Your task to perform on an android device: turn pop-ups on in chrome Image 0: 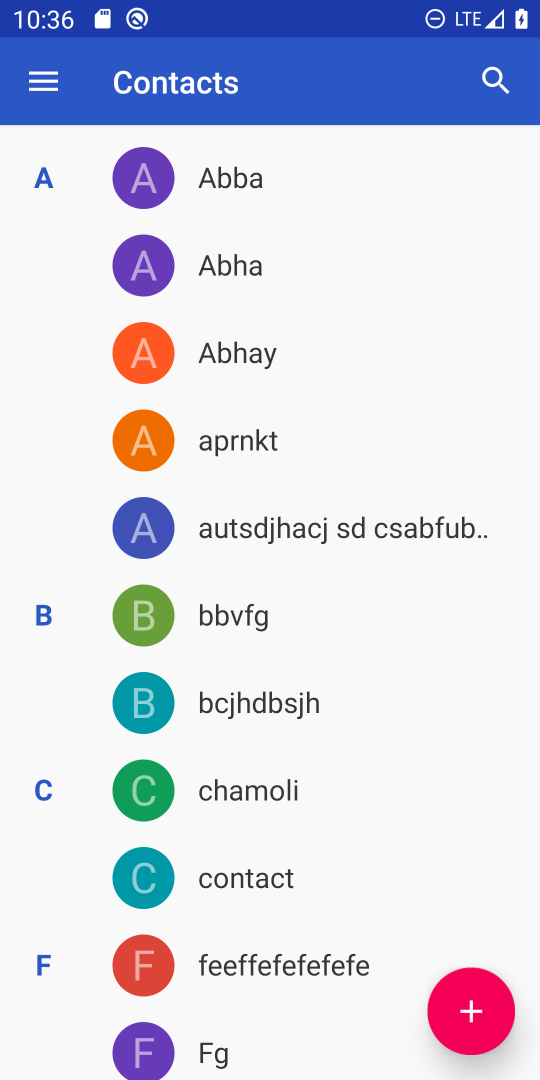
Step 0: press home button
Your task to perform on an android device: turn pop-ups on in chrome Image 1: 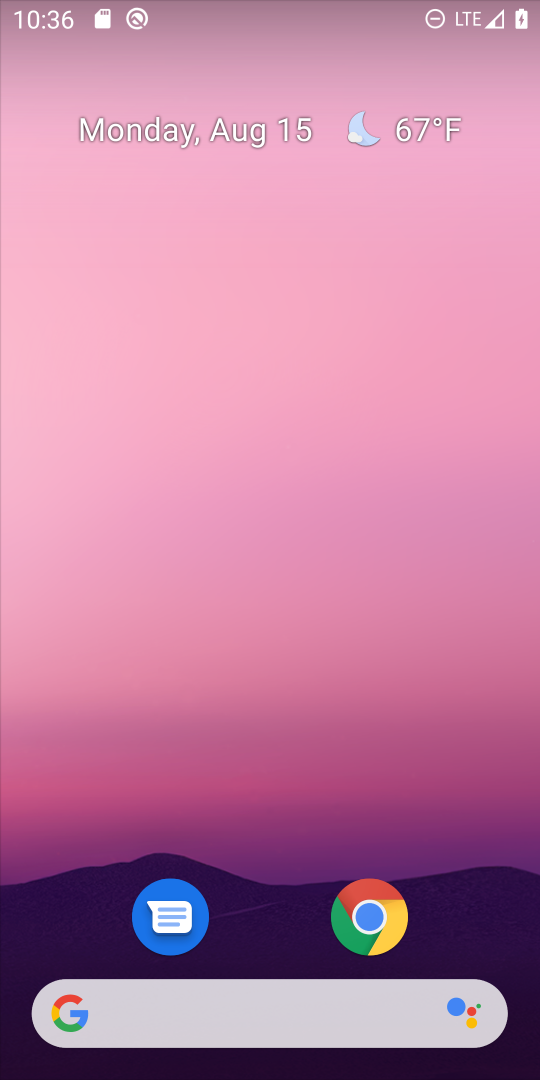
Step 1: click (375, 907)
Your task to perform on an android device: turn pop-ups on in chrome Image 2: 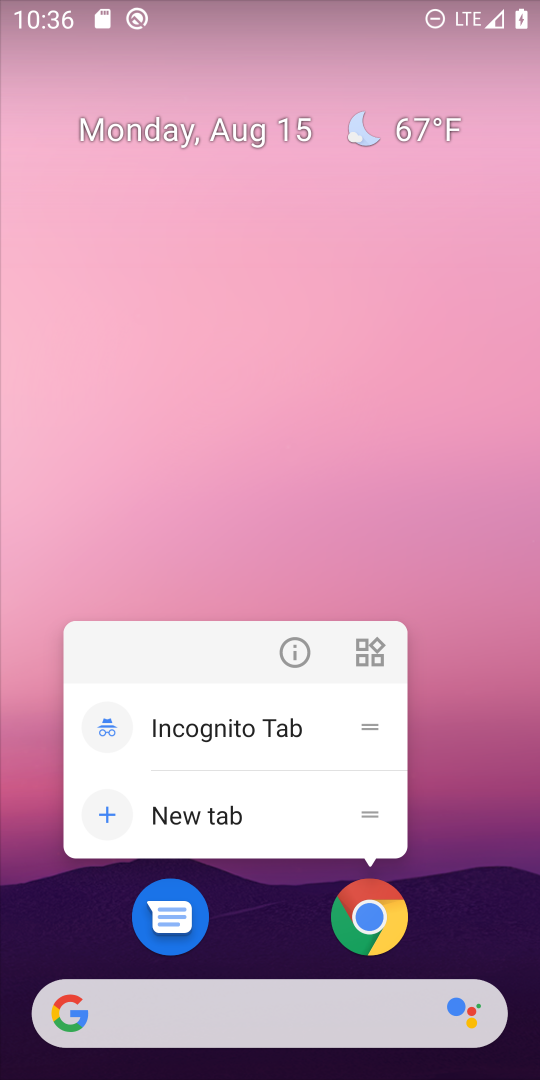
Step 2: click (374, 907)
Your task to perform on an android device: turn pop-ups on in chrome Image 3: 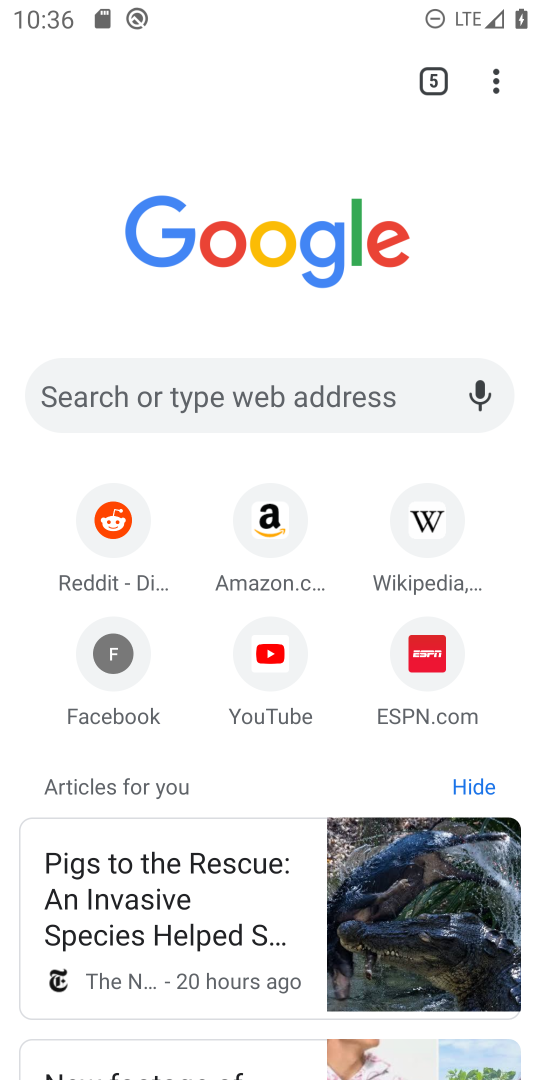
Step 3: click (500, 85)
Your task to perform on an android device: turn pop-ups on in chrome Image 4: 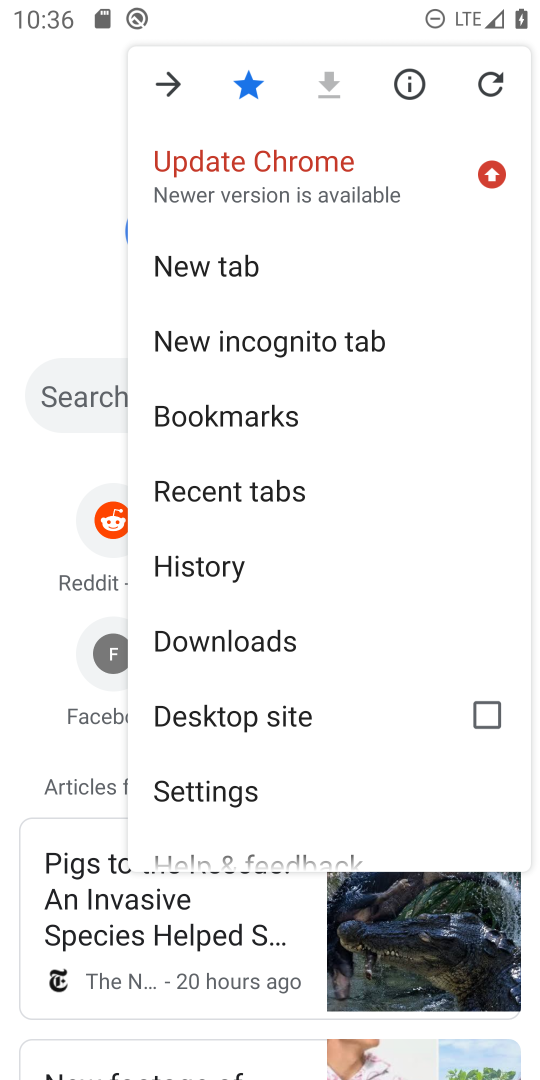
Step 4: click (240, 776)
Your task to perform on an android device: turn pop-ups on in chrome Image 5: 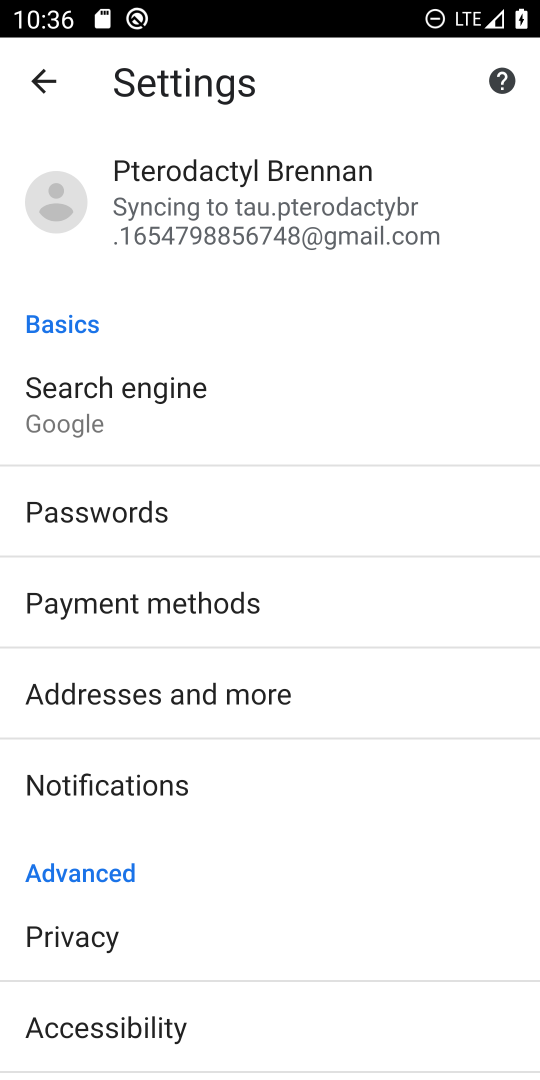
Step 5: click (282, 834)
Your task to perform on an android device: turn pop-ups on in chrome Image 6: 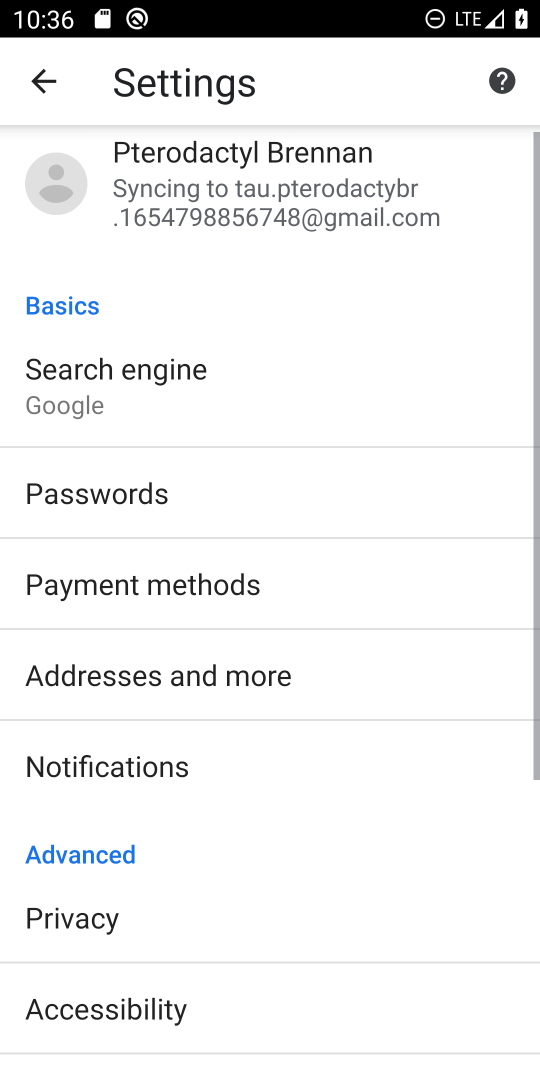
Step 6: drag from (374, 489) to (374, 197)
Your task to perform on an android device: turn pop-ups on in chrome Image 7: 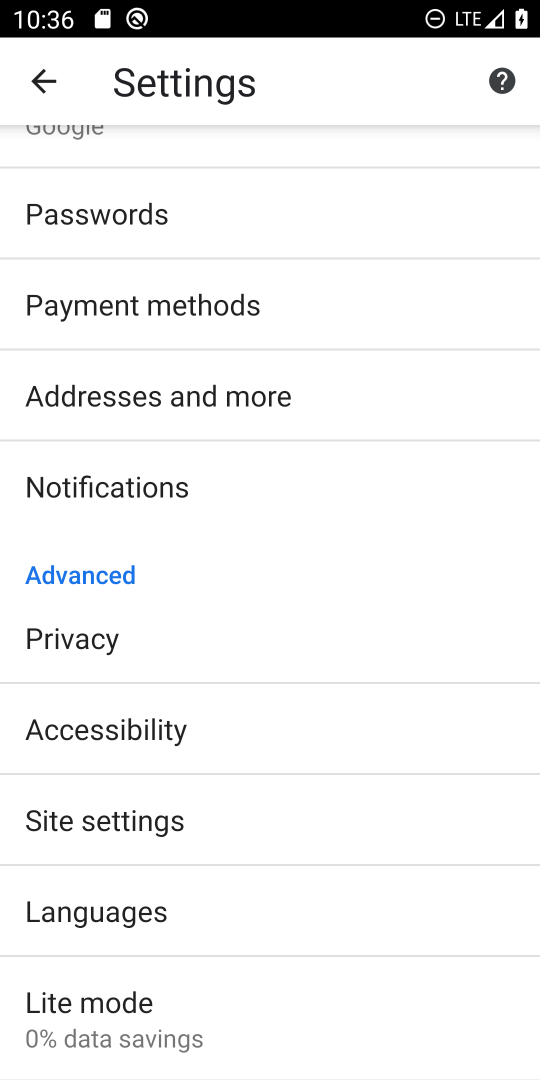
Step 7: click (138, 820)
Your task to perform on an android device: turn pop-ups on in chrome Image 8: 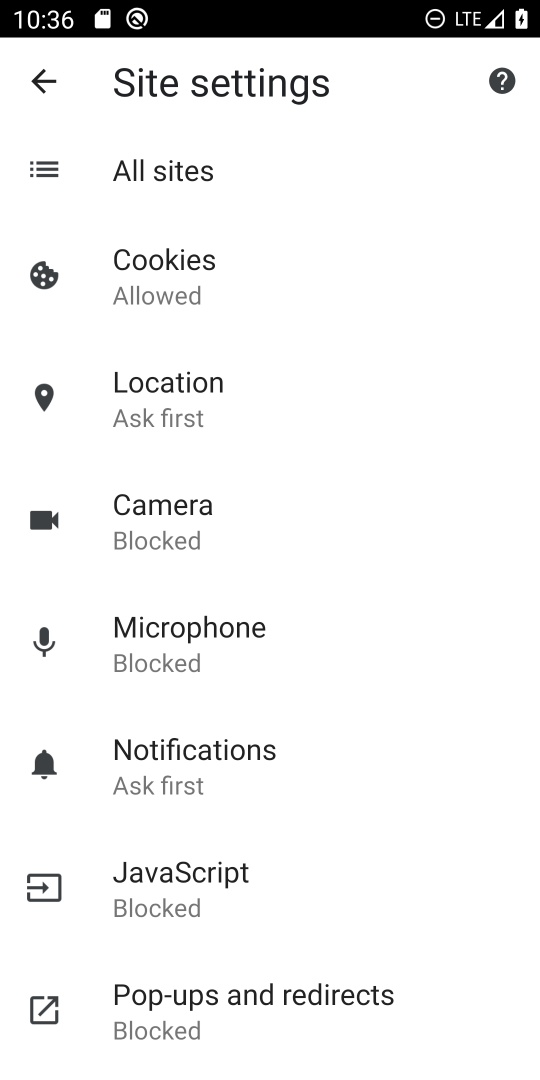
Step 8: click (253, 985)
Your task to perform on an android device: turn pop-ups on in chrome Image 9: 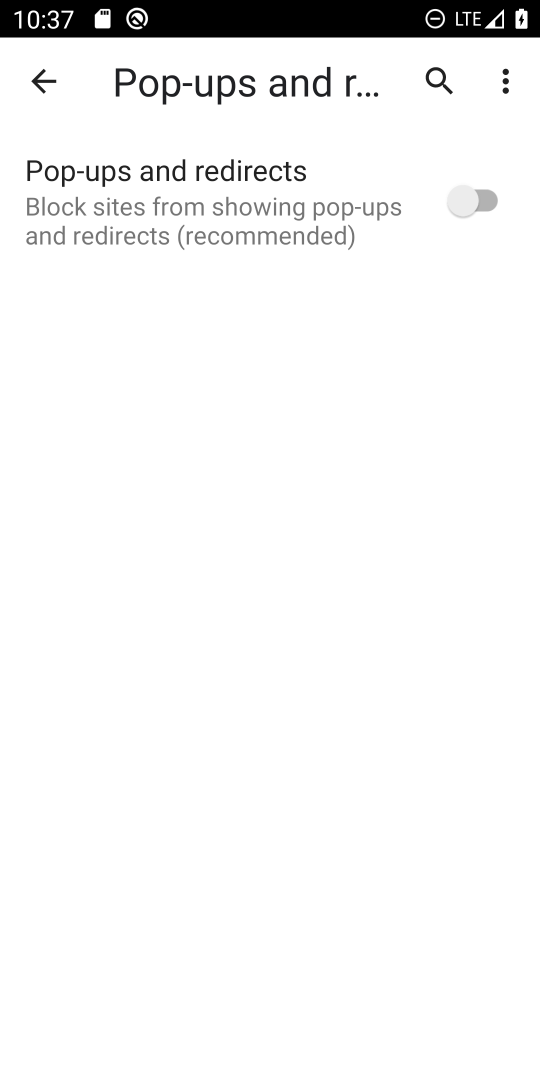
Step 9: click (491, 199)
Your task to perform on an android device: turn pop-ups on in chrome Image 10: 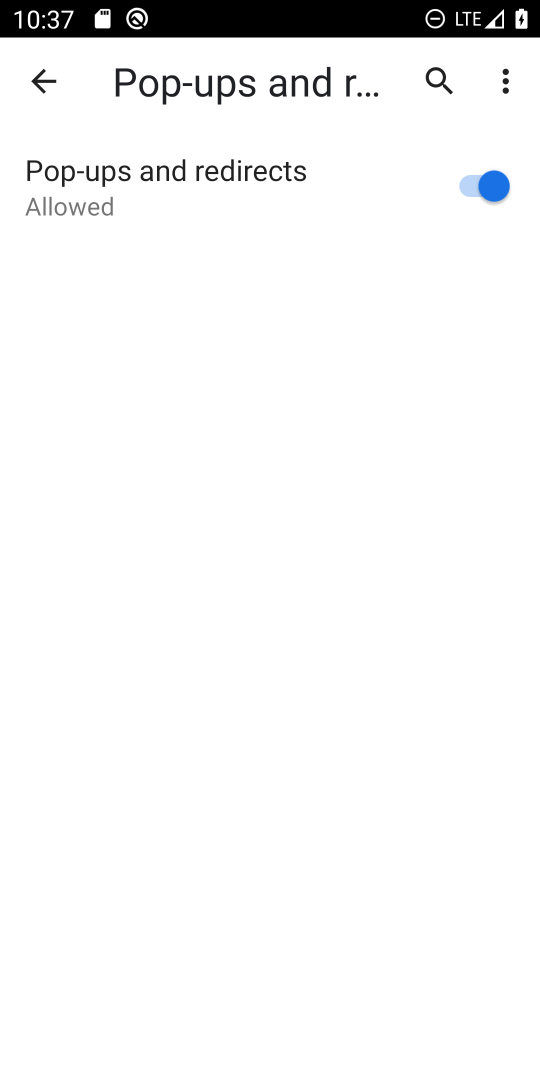
Step 10: task complete